Your task to perform on an android device: turn off airplane mode Image 0: 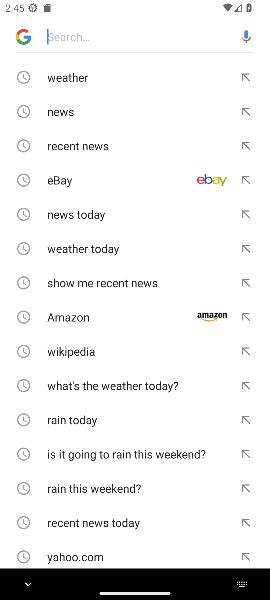
Step 0: press home button
Your task to perform on an android device: turn off airplane mode Image 1: 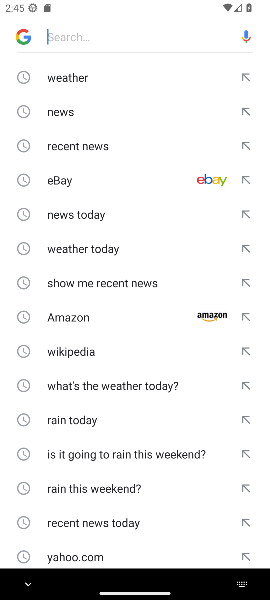
Step 1: press home button
Your task to perform on an android device: turn off airplane mode Image 2: 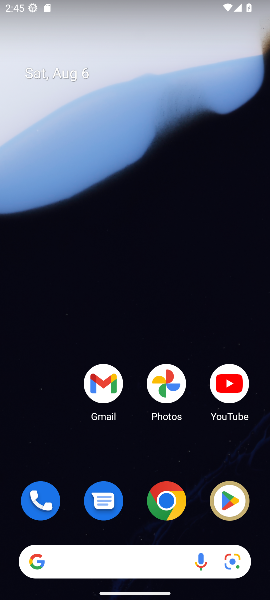
Step 2: drag from (142, 459) to (215, 63)
Your task to perform on an android device: turn off airplane mode Image 3: 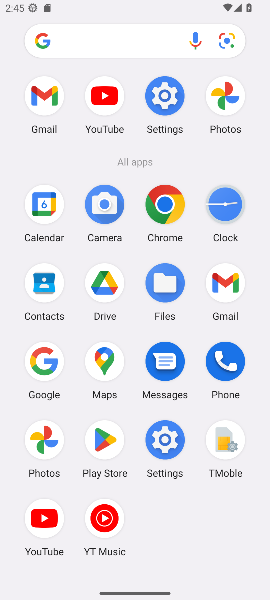
Step 3: click (168, 436)
Your task to perform on an android device: turn off airplane mode Image 4: 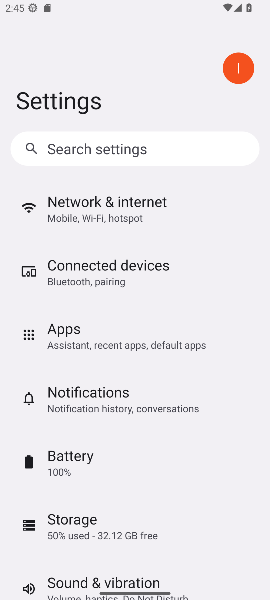
Step 4: click (112, 200)
Your task to perform on an android device: turn off airplane mode Image 5: 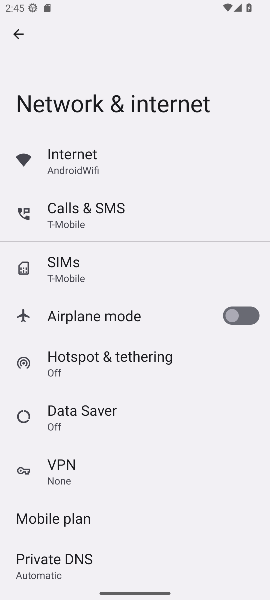
Step 5: task complete